Your task to perform on an android device: What's on the menu at Taco Bell? Image 0: 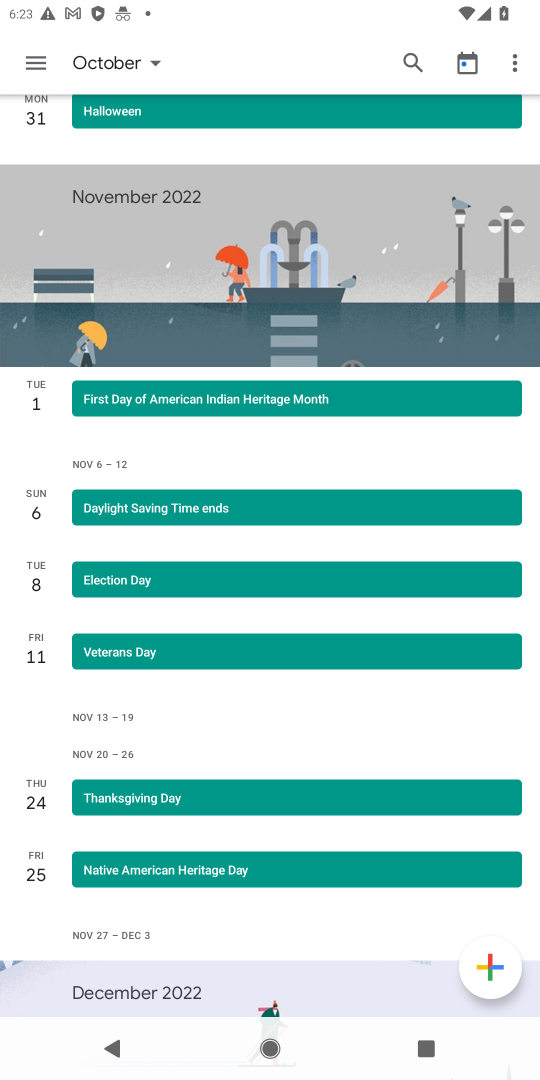
Step 0: press home button
Your task to perform on an android device: What's on the menu at Taco Bell? Image 1: 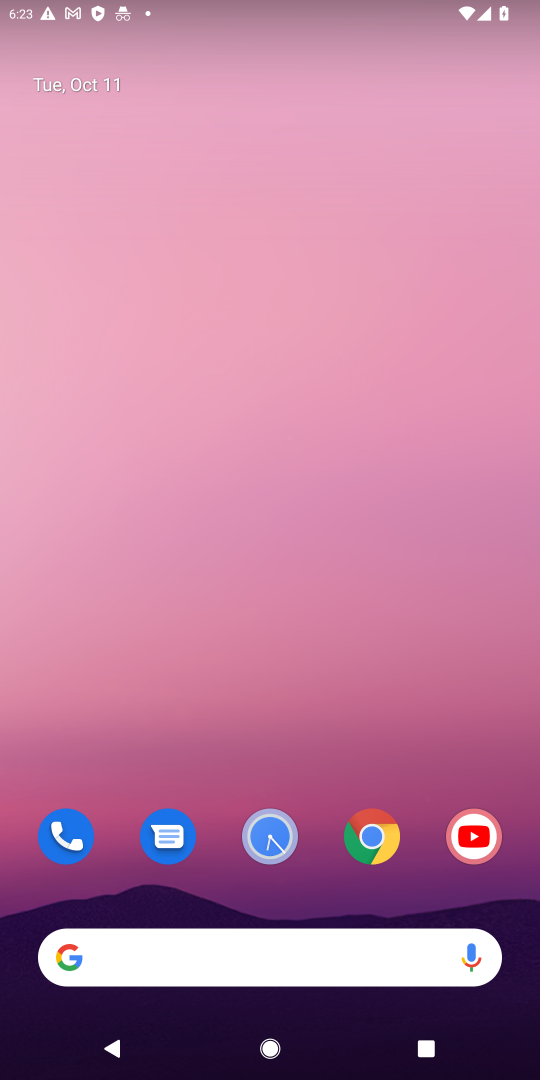
Step 1: click (372, 838)
Your task to perform on an android device: What's on the menu at Taco Bell? Image 2: 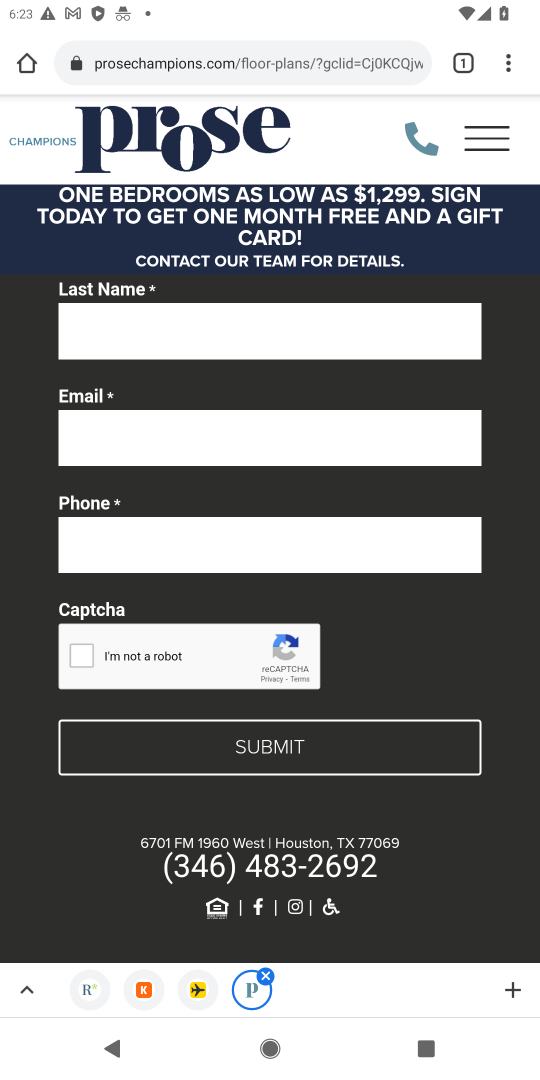
Step 2: click (204, 42)
Your task to perform on an android device: What's on the menu at Taco Bell? Image 3: 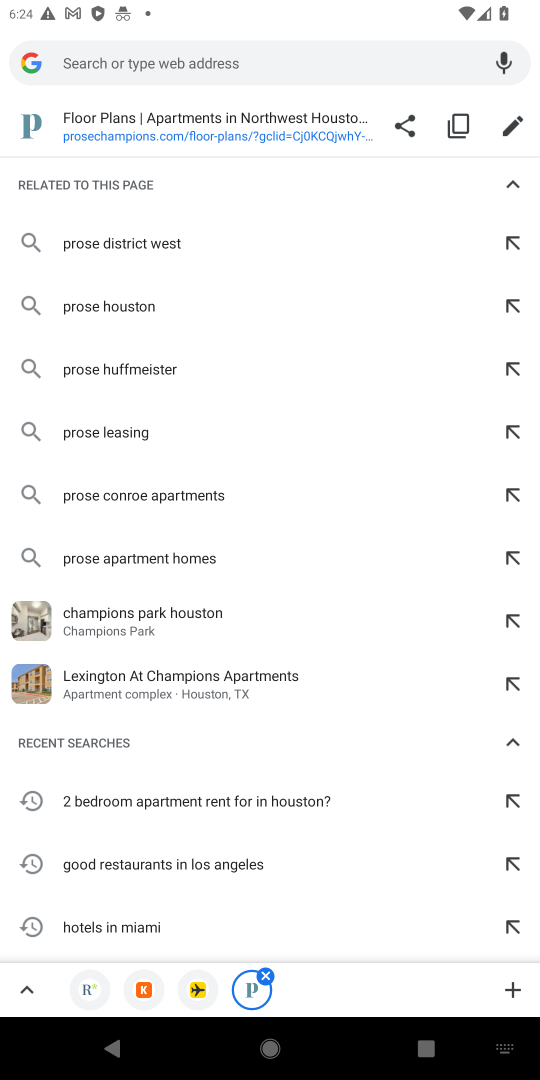
Step 3: type "menu at Taco Bell?"
Your task to perform on an android device: What's on the menu at Taco Bell? Image 4: 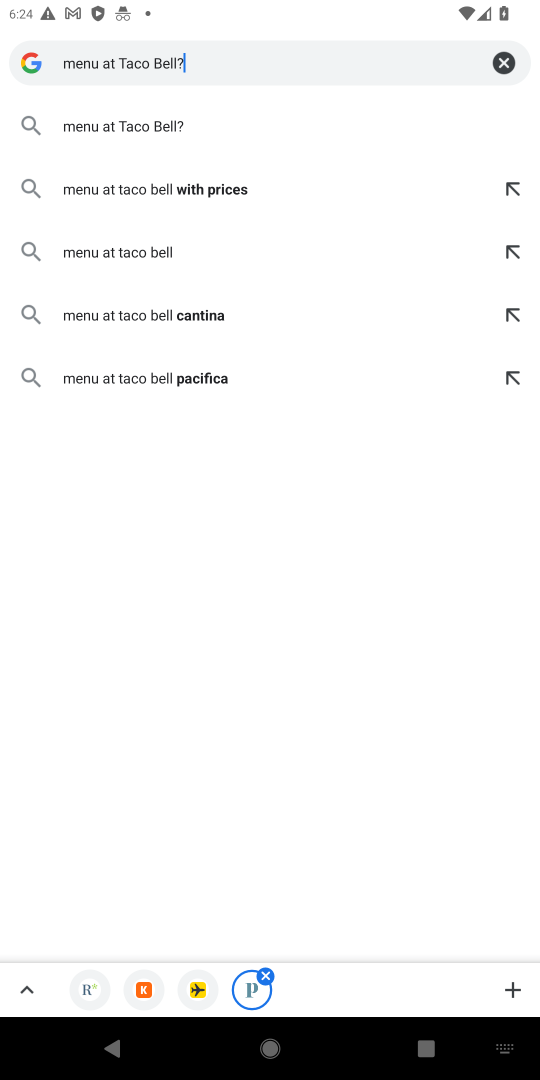
Step 4: click (101, 122)
Your task to perform on an android device: What's on the menu at Taco Bell? Image 5: 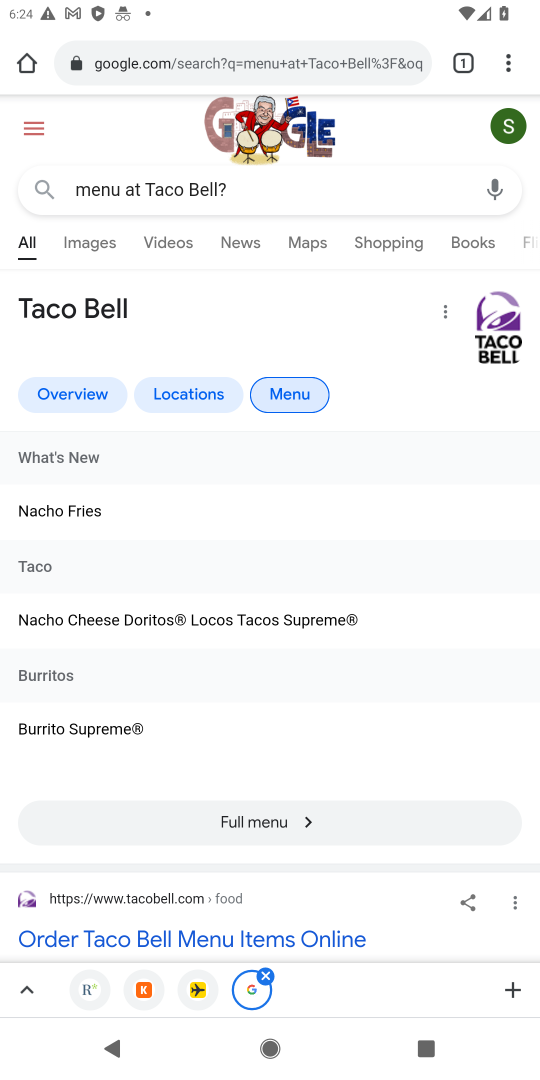
Step 5: drag from (247, 734) to (242, 265)
Your task to perform on an android device: What's on the menu at Taco Bell? Image 6: 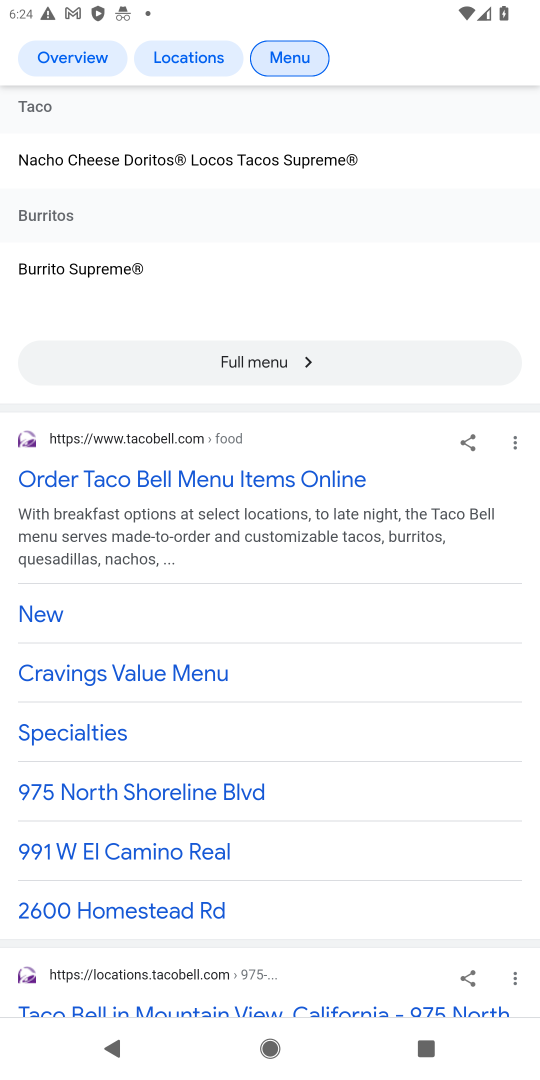
Step 6: drag from (300, 946) to (260, 475)
Your task to perform on an android device: What's on the menu at Taco Bell? Image 7: 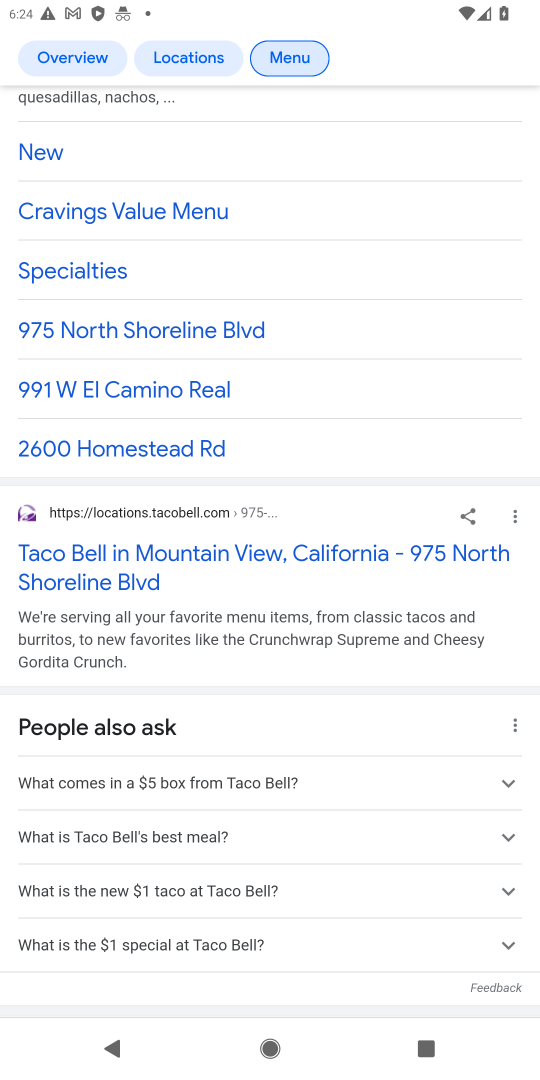
Step 7: drag from (261, 477) to (247, 886)
Your task to perform on an android device: What's on the menu at Taco Bell? Image 8: 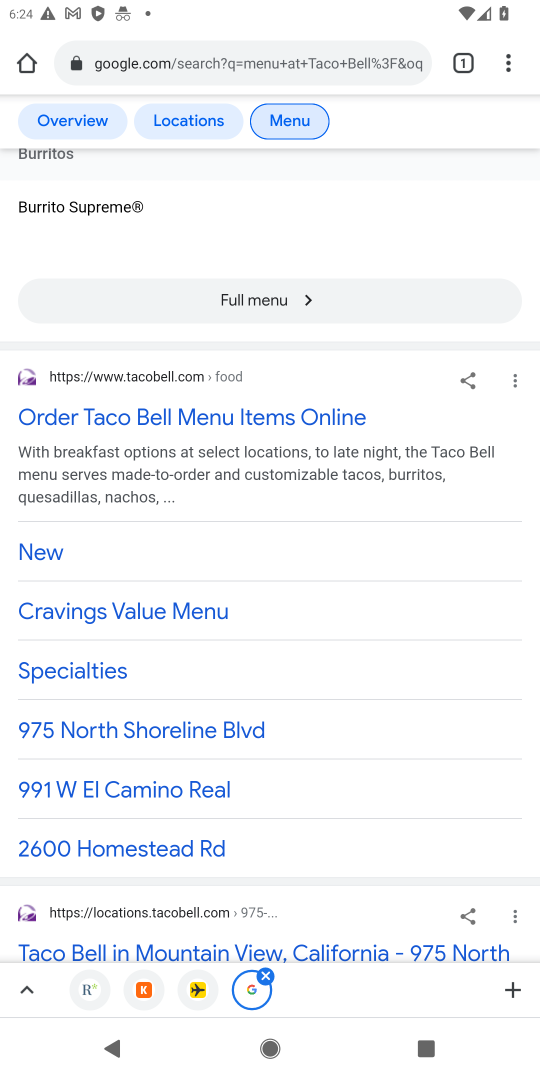
Step 8: click (146, 421)
Your task to perform on an android device: What's on the menu at Taco Bell? Image 9: 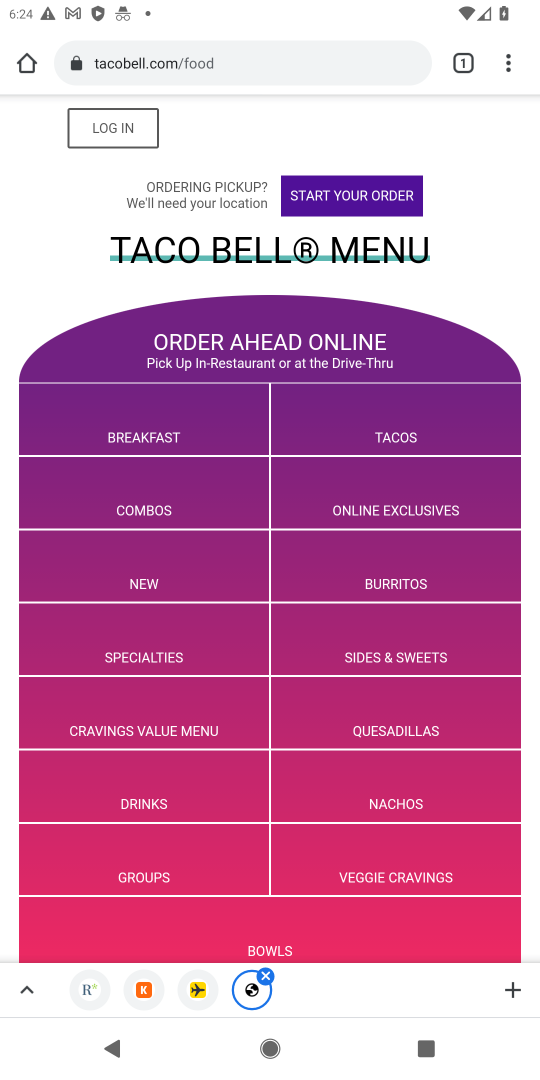
Step 9: drag from (250, 880) to (249, 296)
Your task to perform on an android device: What's on the menu at Taco Bell? Image 10: 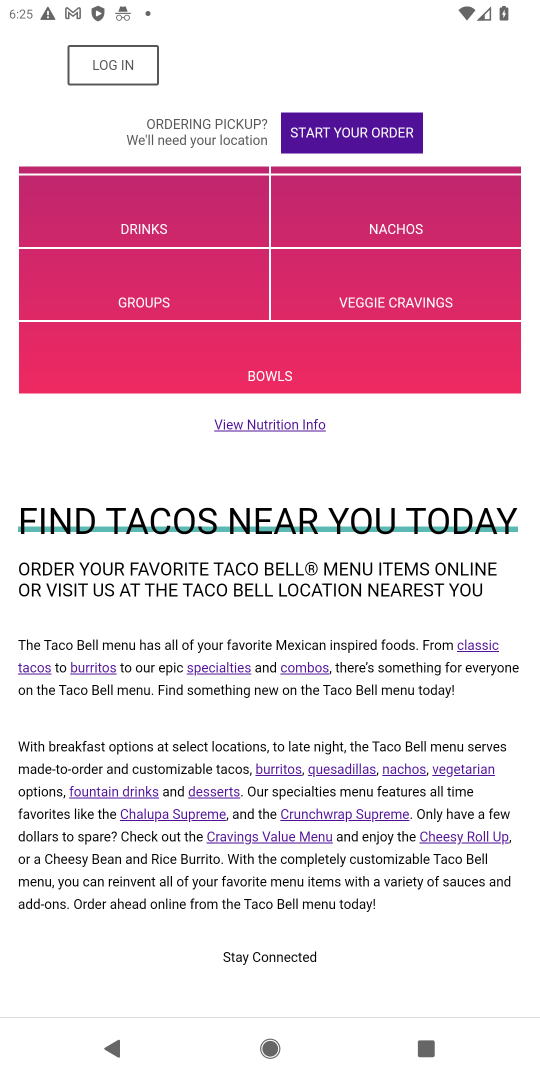
Step 10: drag from (374, 868) to (244, 201)
Your task to perform on an android device: What's on the menu at Taco Bell? Image 11: 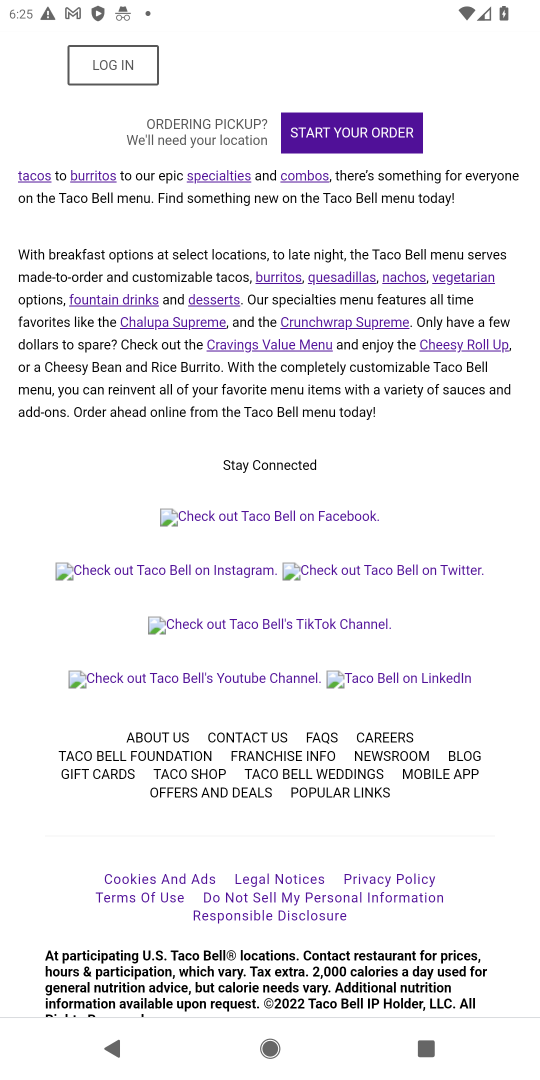
Step 11: drag from (349, 848) to (300, 241)
Your task to perform on an android device: What's on the menu at Taco Bell? Image 12: 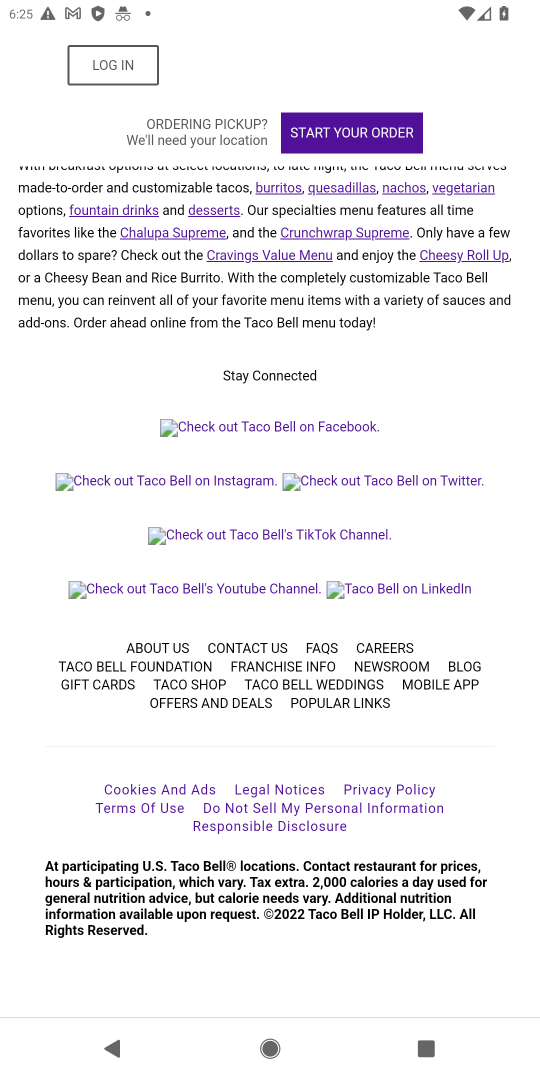
Step 12: drag from (407, 284) to (358, 944)
Your task to perform on an android device: What's on the menu at Taco Bell? Image 13: 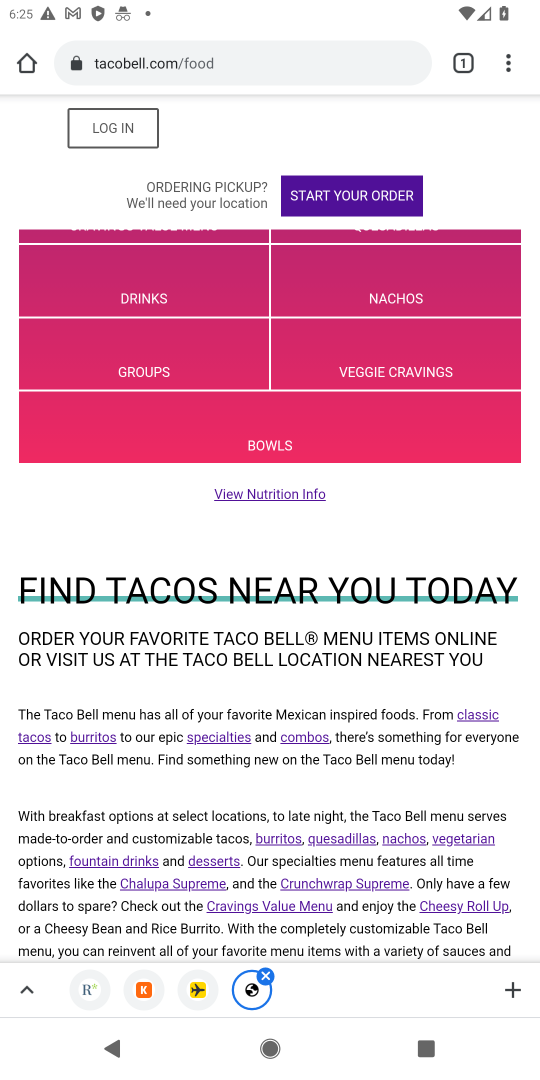
Step 13: drag from (382, 477) to (338, 930)
Your task to perform on an android device: What's on the menu at Taco Bell? Image 14: 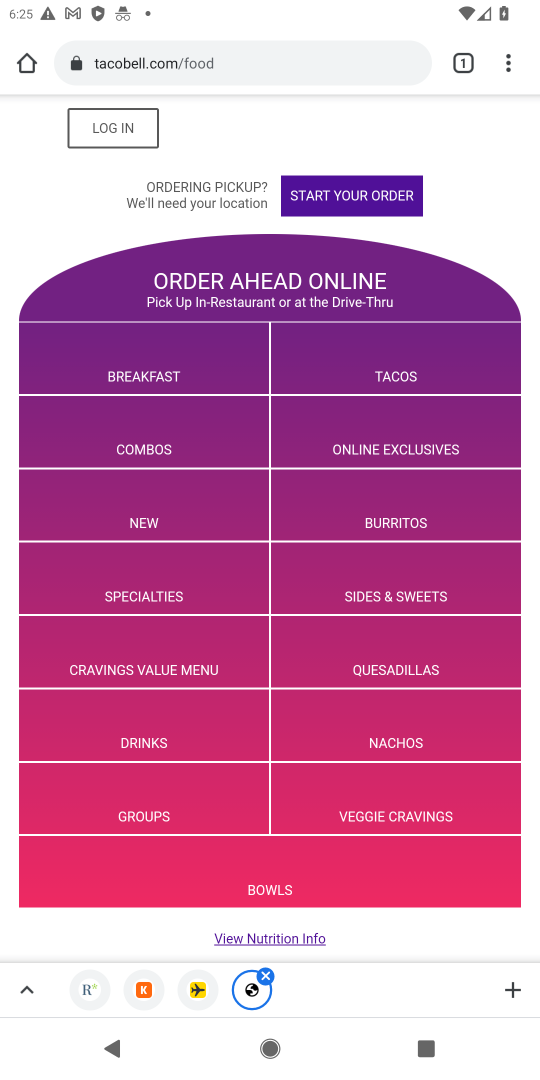
Step 14: click (146, 446)
Your task to perform on an android device: What's on the menu at Taco Bell? Image 15: 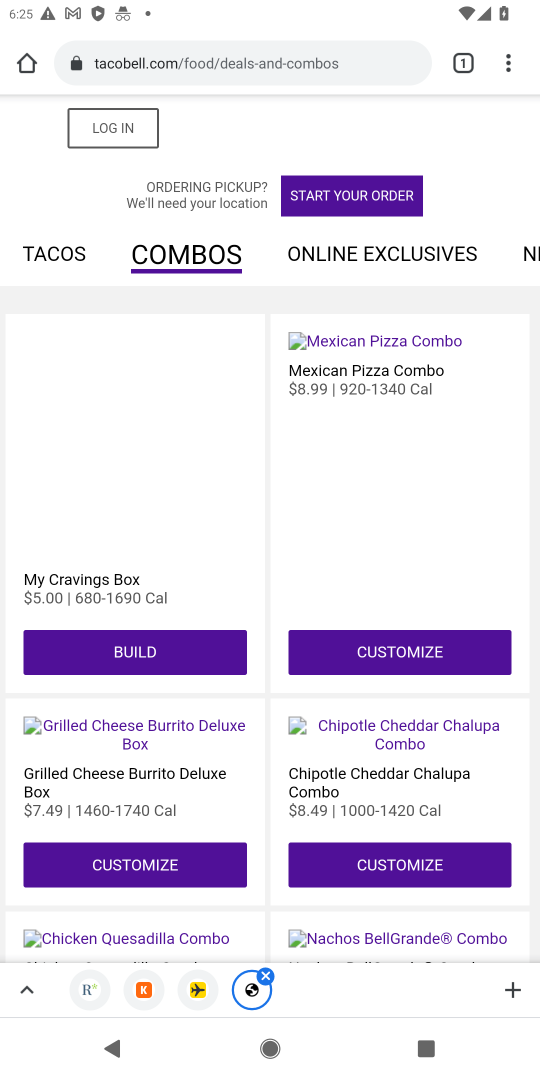
Step 15: task complete